Your task to perform on an android device: Show the shopping cart on amazon.com. Add "logitech g502" to the cart on amazon.com, then select checkout. Image 0: 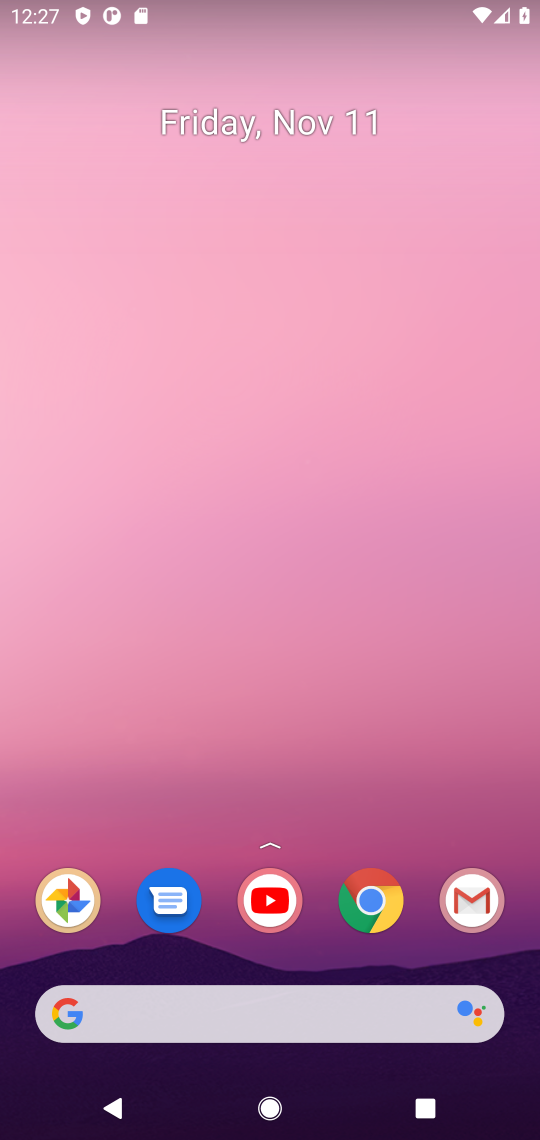
Step 0: click (370, 896)
Your task to perform on an android device: Show the shopping cart on amazon.com. Add "logitech g502" to the cart on amazon.com, then select checkout. Image 1: 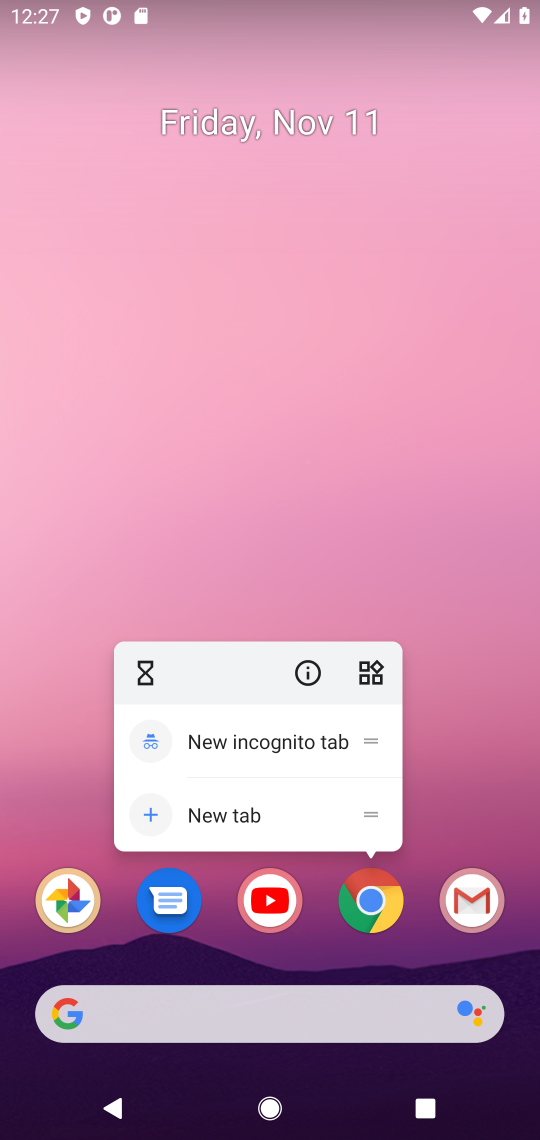
Step 1: click (370, 896)
Your task to perform on an android device: Show the shopping cart on amazon.com. Add "logitech g502" to the cart on amazon.com, then select checkout. Image 2: 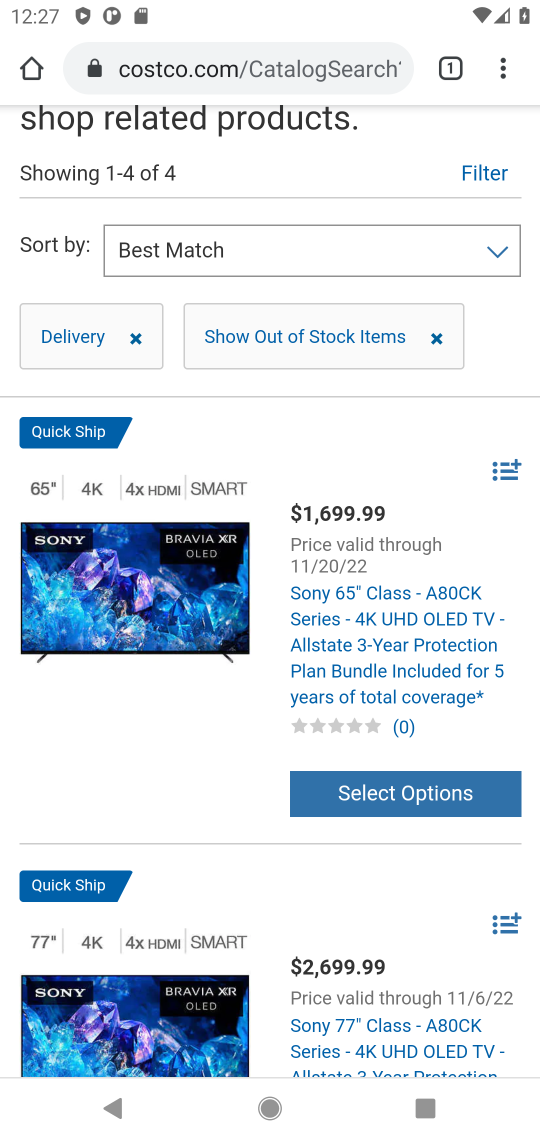
Step 2: click (277, 73)
Your task to perform on an android device: Show the shopping cart on amazon.com. Add "logitech g502" to the cart on amazon.com, then select checkout. Image 3: 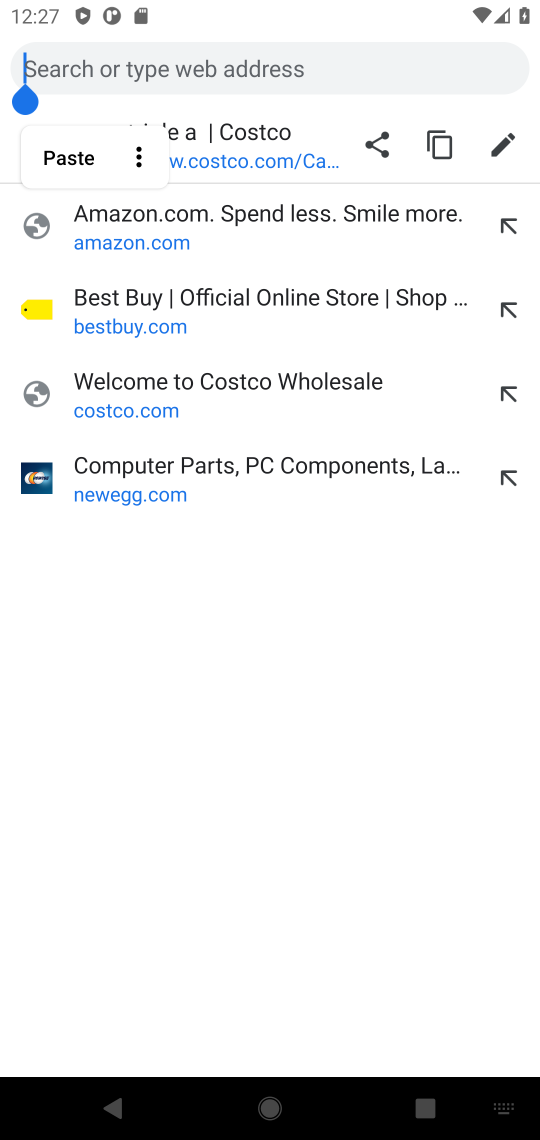
Step 3: click (152, 243)
Your task to perform on an android device: Show the shopping cart on amazon.com. Add "logitech g502" to the cart on amazon.com, then select checkout. Image 4: 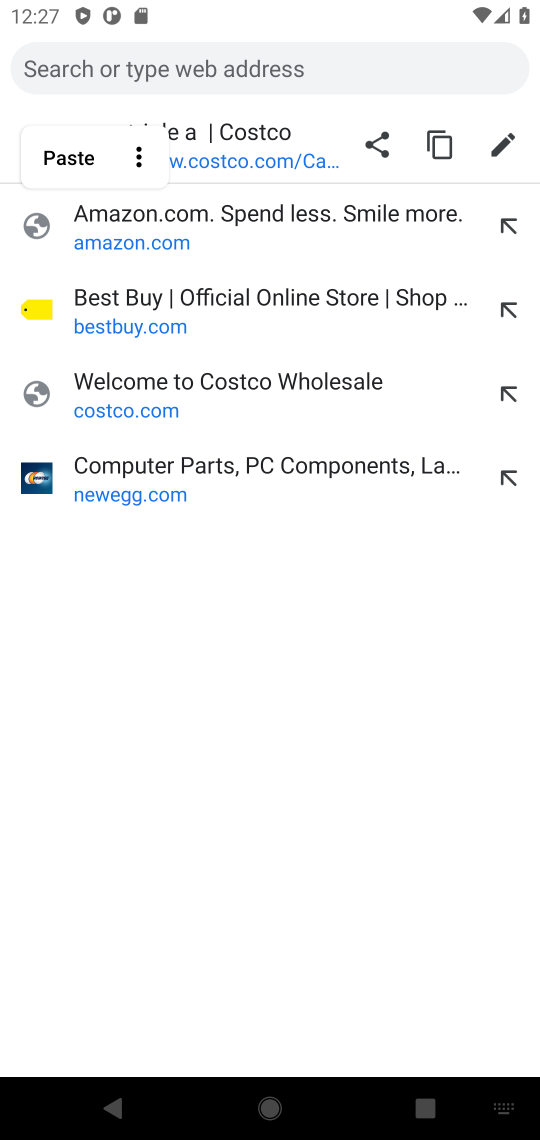
Step 4: click (126, 234)
Your task to perform on an android device: Show the shopping cart on amazon.com. Add "logitech g502" to the cart on amazon.com, then select checkout. Image 5: 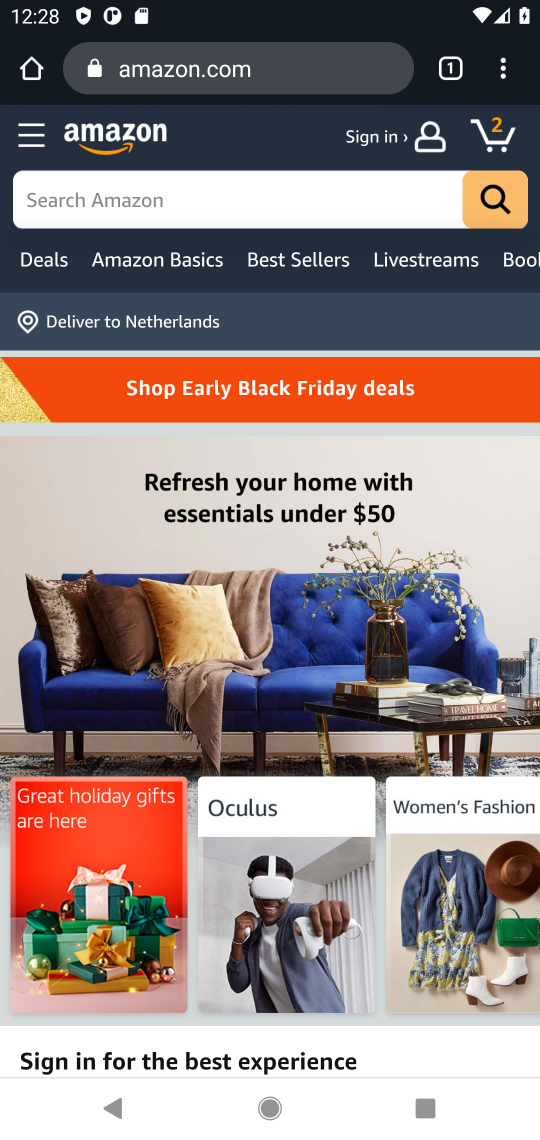
Step 5: click (77, 191)
Your task to perform on an android device: Show the shopping cart on amazon.com. Add "logitech g502" to the cart on amazon.com, then select checkout. Image 6: 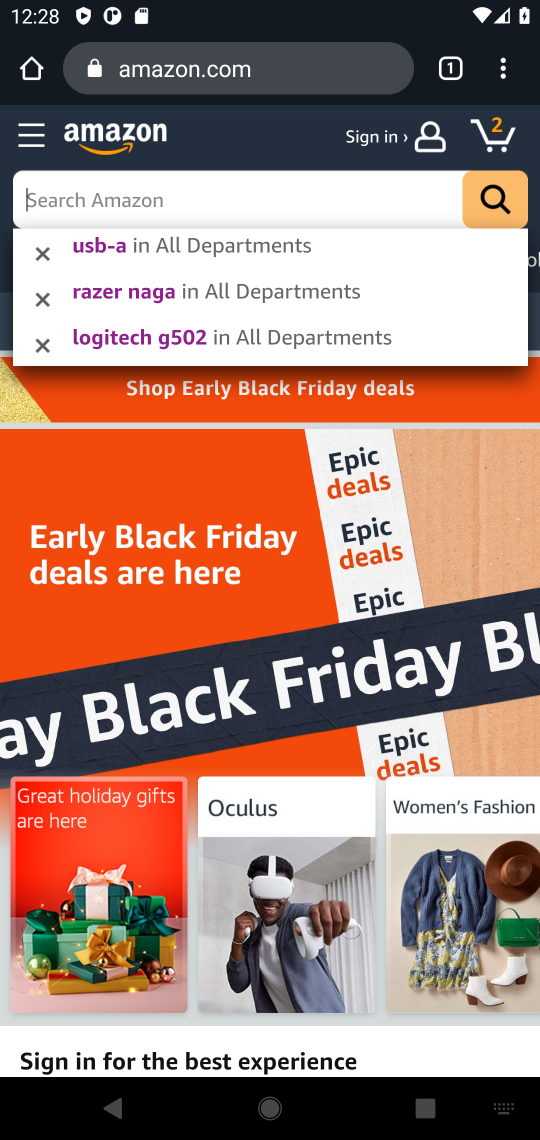
Step 6: press enter
Your task to perform on an android device: Show the shopping cart on amazon.com. Add "logitech g502" to the cart on amazon.com, then select checkout. Image 7: 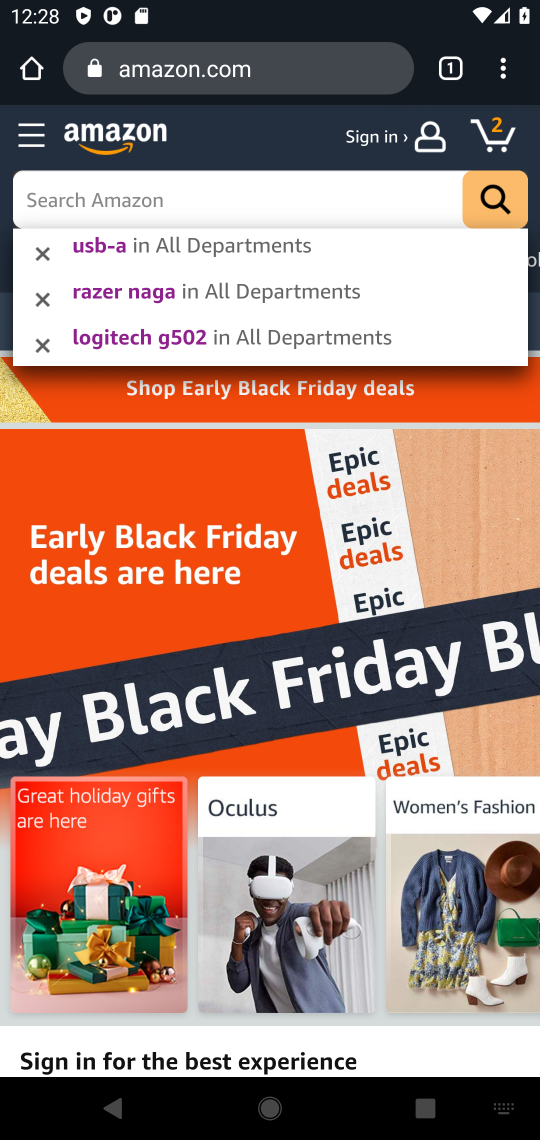
Step 7: type "logitech g502"
Your task to perform on an android device: Show the shopping cart on amazon.com. Add "logitech g502" to the cart on amazon.com, then select checkout. Image 8: 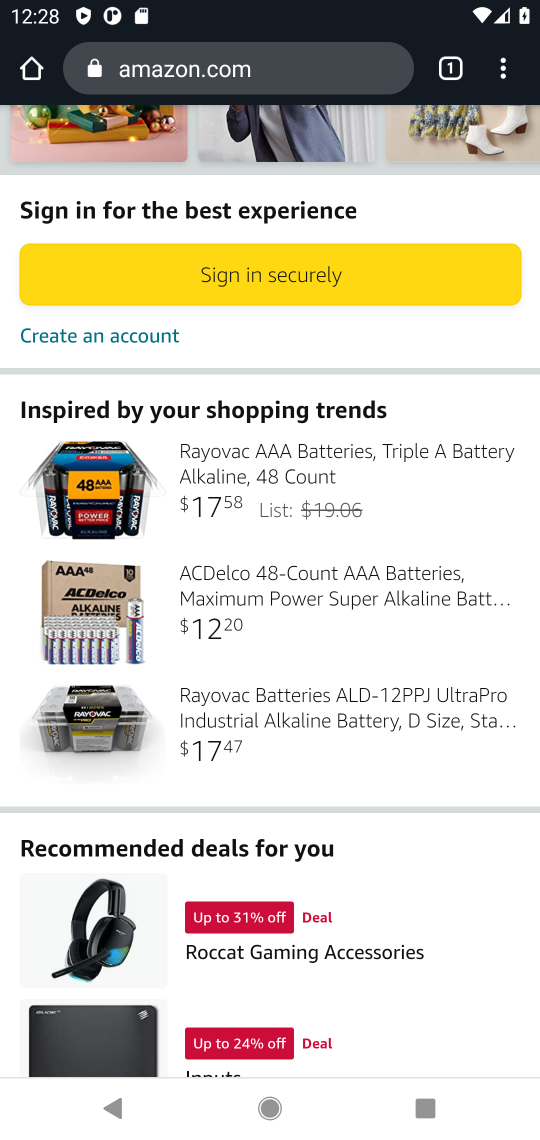
Step 8: drag from (391, 177) to (363, 926)
Your task to perform on an android device: Show the shopping cart on amazon.com. Add "logitech g502" to the cart on amazon.com, then select checkout. Image 9: 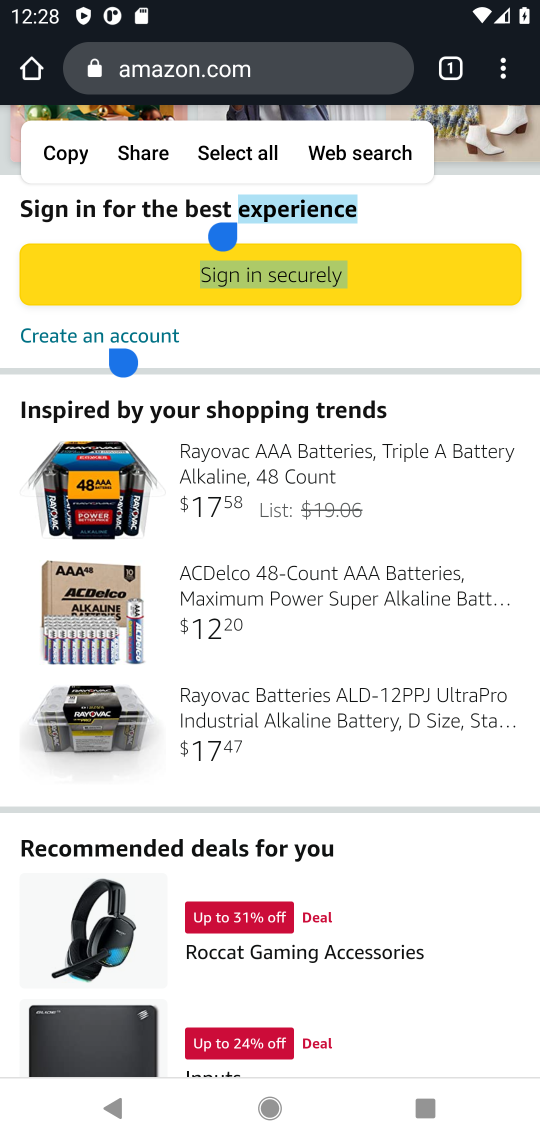
Step 9: drag from (464, 183) to (308, 1020)
Your task to perform on an android device: Show the shopping cart on amazon.com. Add "logitech g502" to the cart on amazon.com, then select checkout. Image 10: 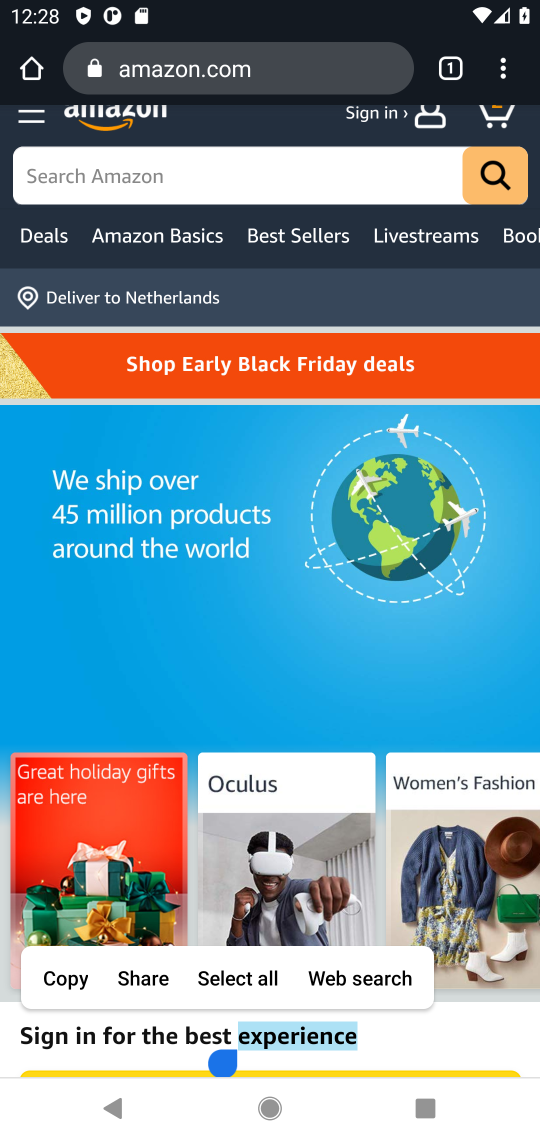
Step 10: click (248, 159)
Your task to perform on an android device: Show the shopping cart on amazon.com. Add "logitech g502" to the cart on amazon.com, then select checkout. Image 11: 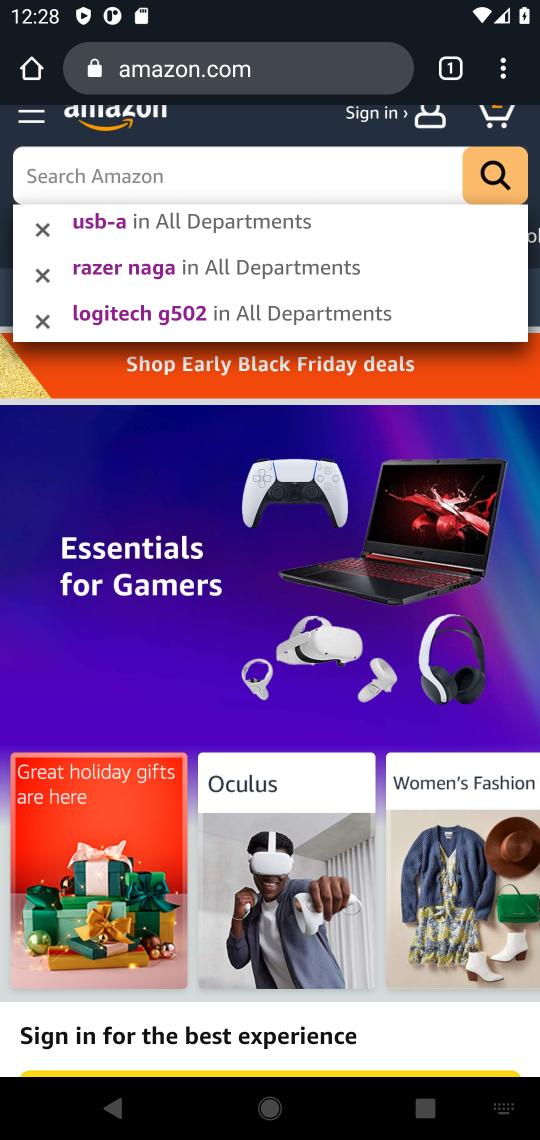
Step 11: type "logitech g502"
Your task to perform on an android device: Show the shopping cart on amazon.com. Add "logitech g502" to the cart on amazon.com, then select checkout. Image 12: 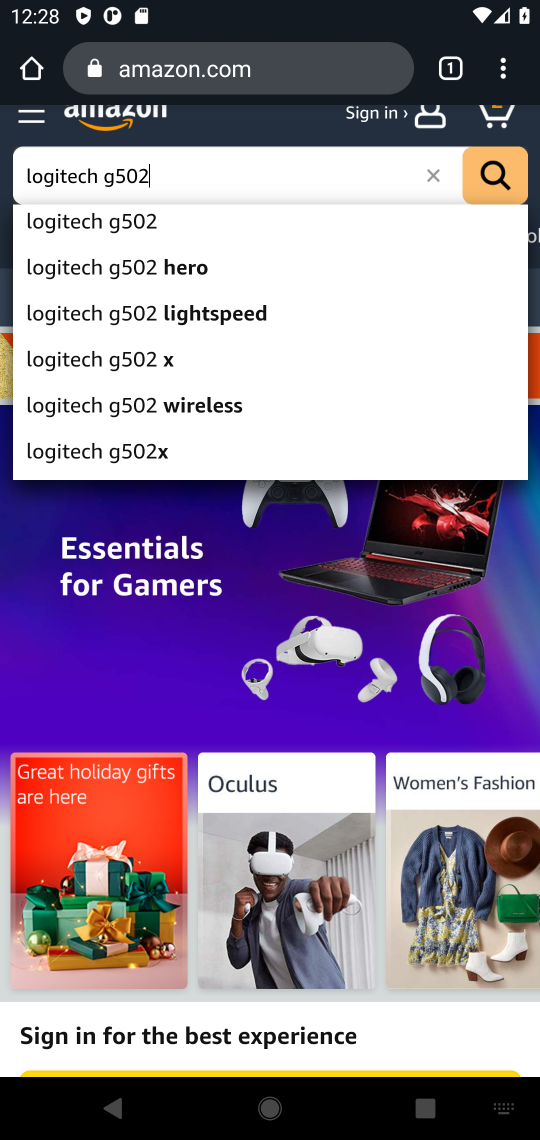
Step 12: press enter
Your task to perform on an android device: Show the shopping cart on amazon.com. Add "logitech g502" to the cart on amazon.com, then select checkout. Image 13: 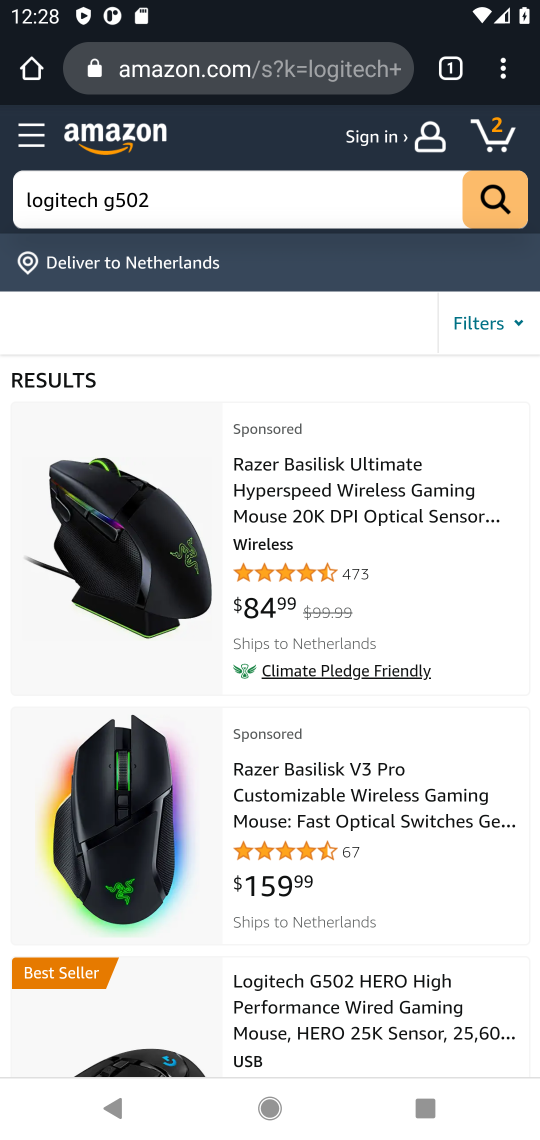
Step 13: drag from (273, 848) to (446, 456)
Your task to perform on an android device: Show the shopping cart on amazon.com. Add "logitech g502" to the cart on amazon.com, then select checkout. Image 14: 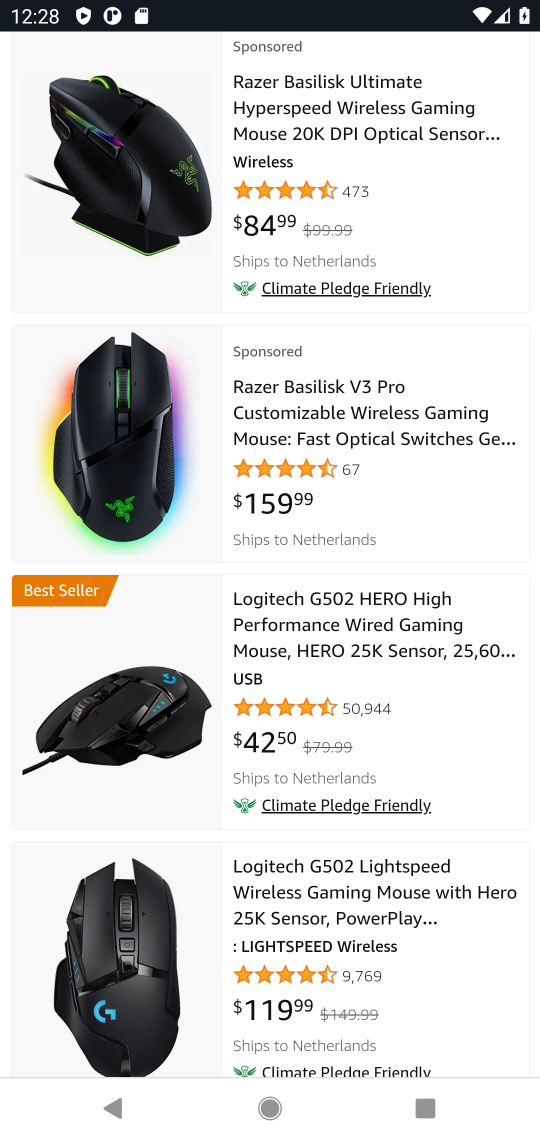
Step 14: click (329, 627)
Your task to perform on an android device: Show the shopping cart on amazon.com. Add "logitech g502" to the cart on amazon.com, then select checkout. Image 15: 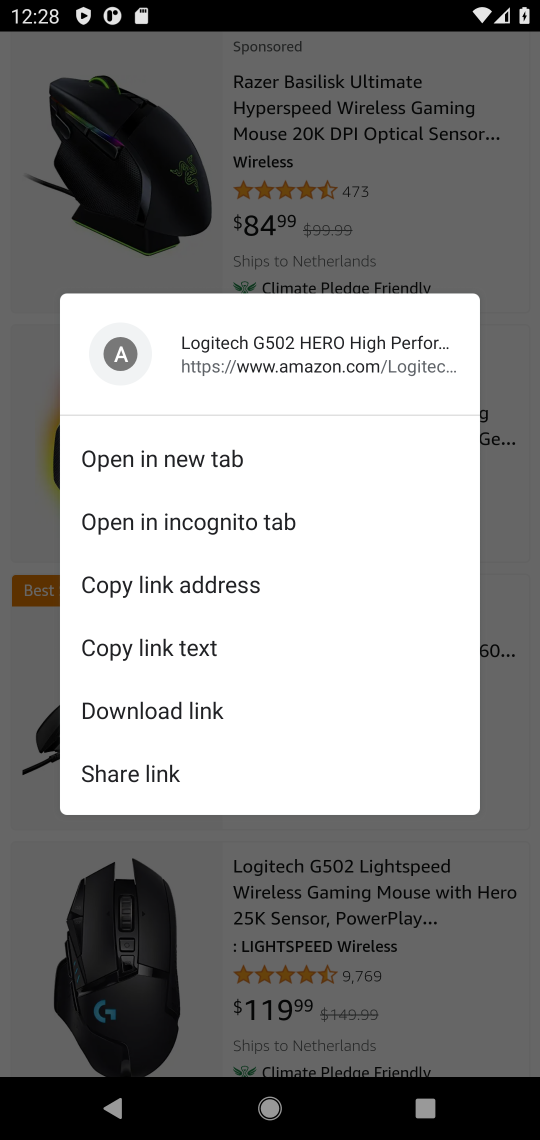
Step 15: click (502, 670)
Your task to perform on an android device: Show the shopping cart on amazon.com. Add "logitech g502" to the cart on amazon.com, then select checkout. Image 16: 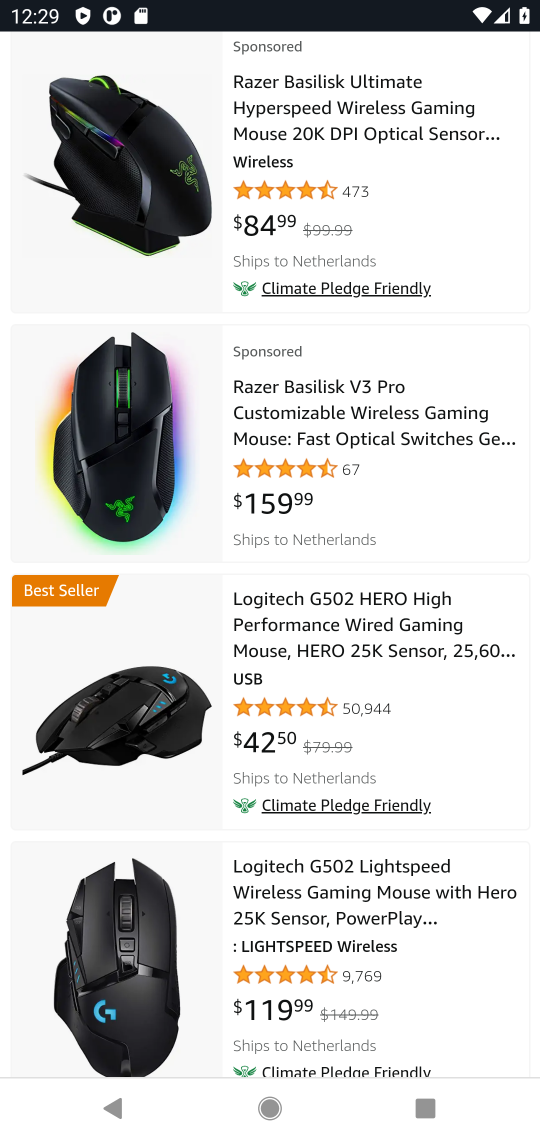
Step 16: click (275, 628)
Your task to perform on an android device: Show the shopping cart on amazon.com. Add "logitech g502" to the cart on amazon.com, then select checkout. Image 17: 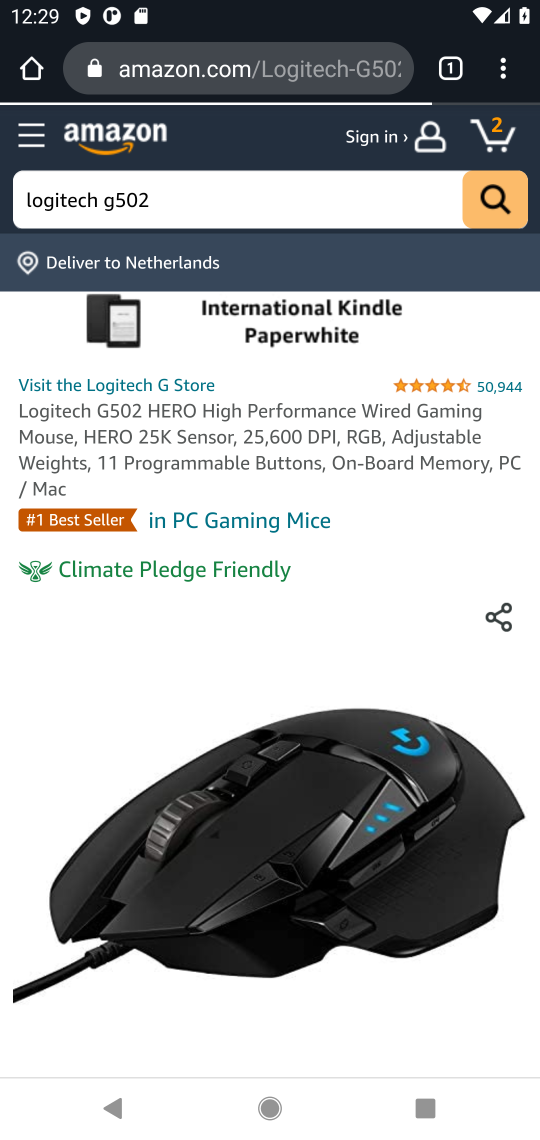
Step 17: drag from (139, 708) to (351, 358)
Your task to perform on an android device: Show the shopping cart on amazon.com. Add "logitech g502" to the cart on amazon.com, then select checkout. Image 18: 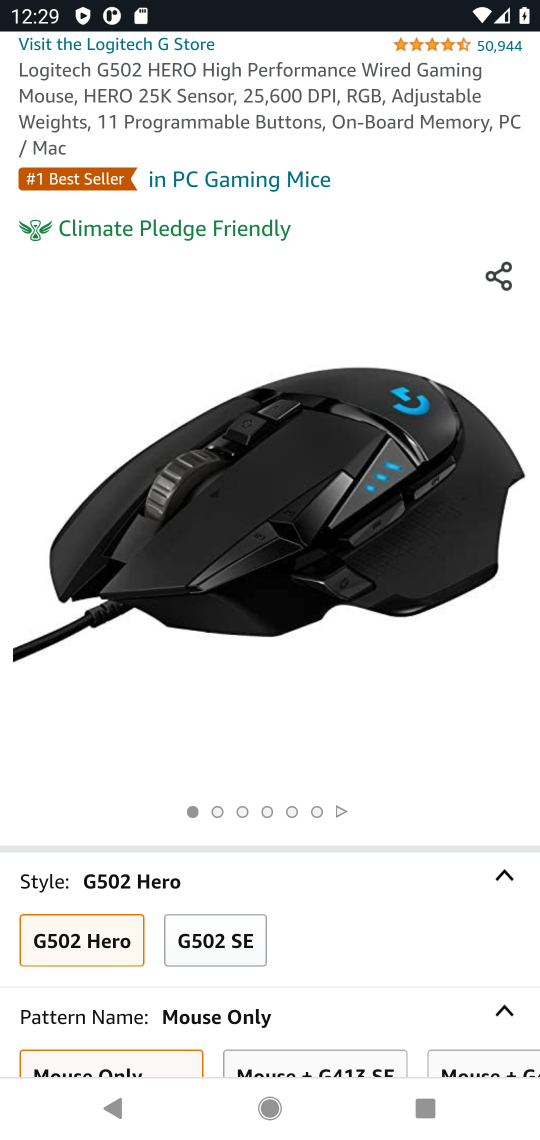
Step 18: drag from (288, 700) to (381, 135)
Your task to perform on an android device: Show the shopping cart on amazon.com. Add "logitech g502" to the cart on amazon.com, then select checkout. Image 19: 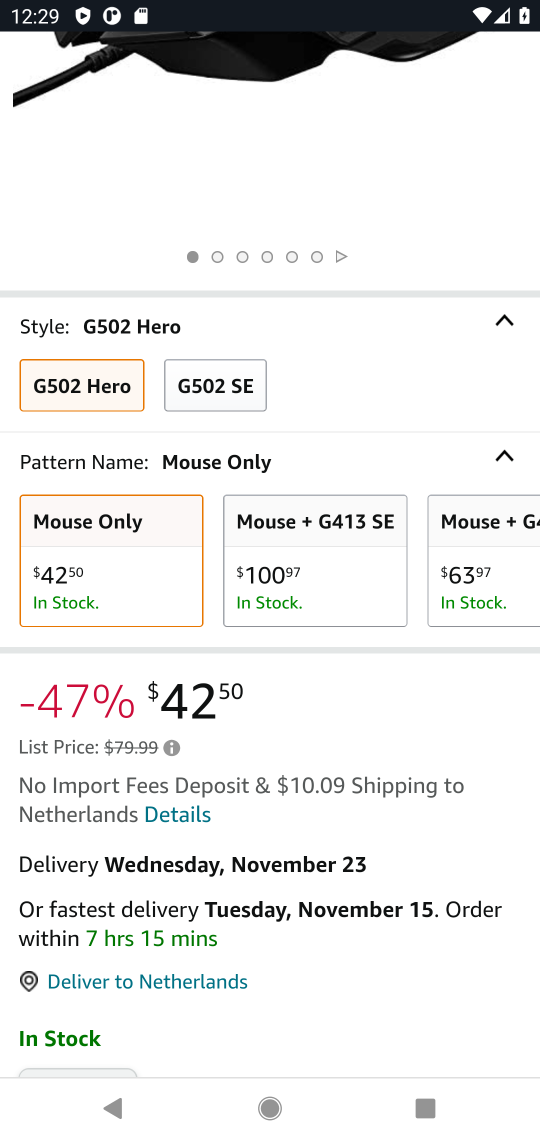
Step 19: drag from (272, 972) to (404, 259)
Your task to perform on an android device: Show the shopping cart on amazon.com. Add "logitech g502" to the cart on amazon.com, then select checkout. Image 20: 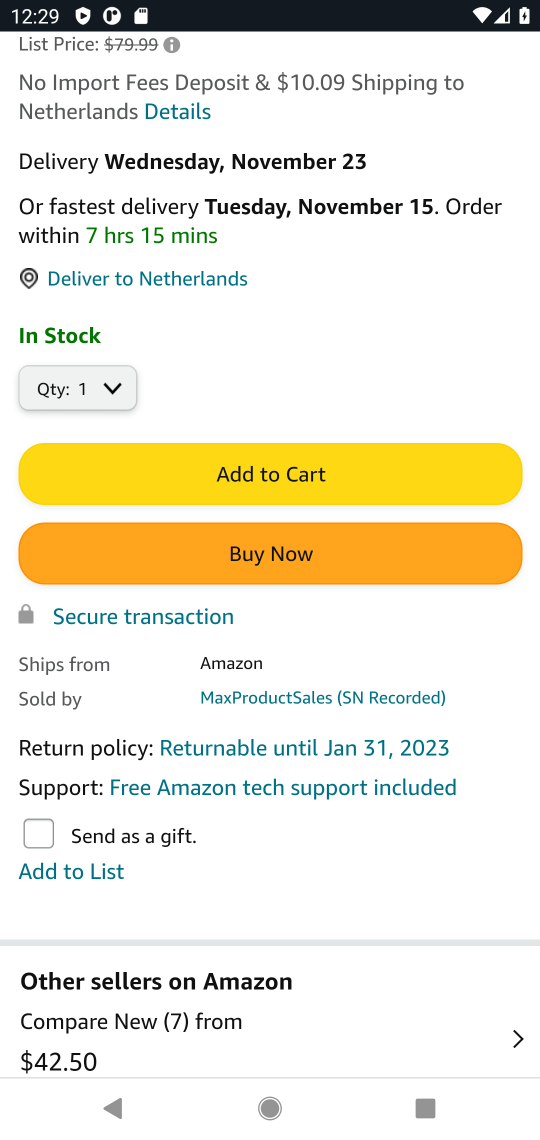
Step 20: click (282, 470)
Your task to perform on an android device: Show the shopping cart on amazon.com. Add "logitech g502" to the cart on amazon.com, then select checkout. Image 21: 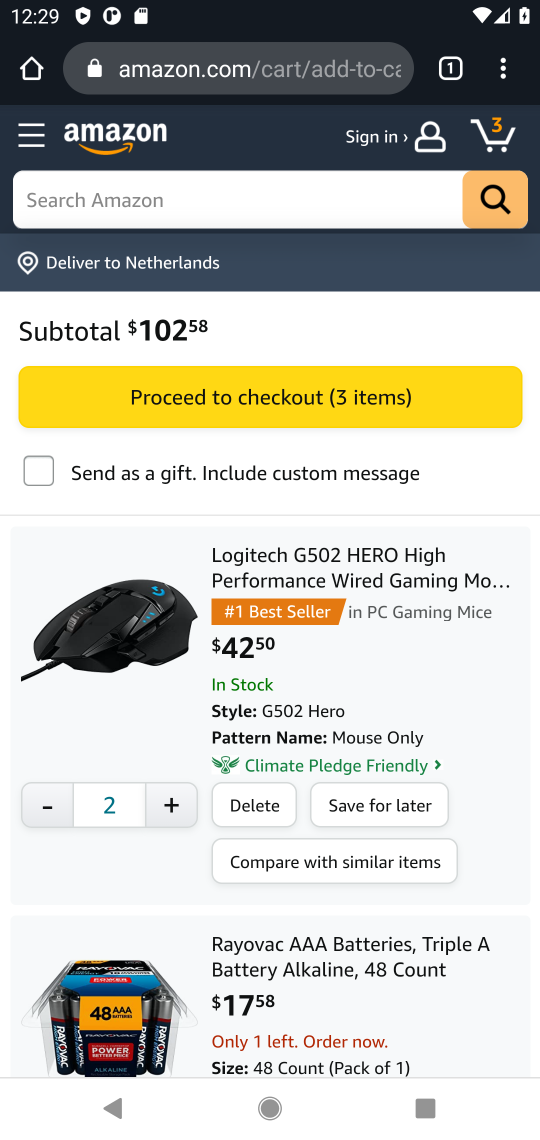
Step 21: drag from (310, 775) to (328, 545)
Your task to perform on an android device: Show the shopping cart on amazon.com. Add "logitech g502" to the cart on amazon.com, then select checkout. Image 22: 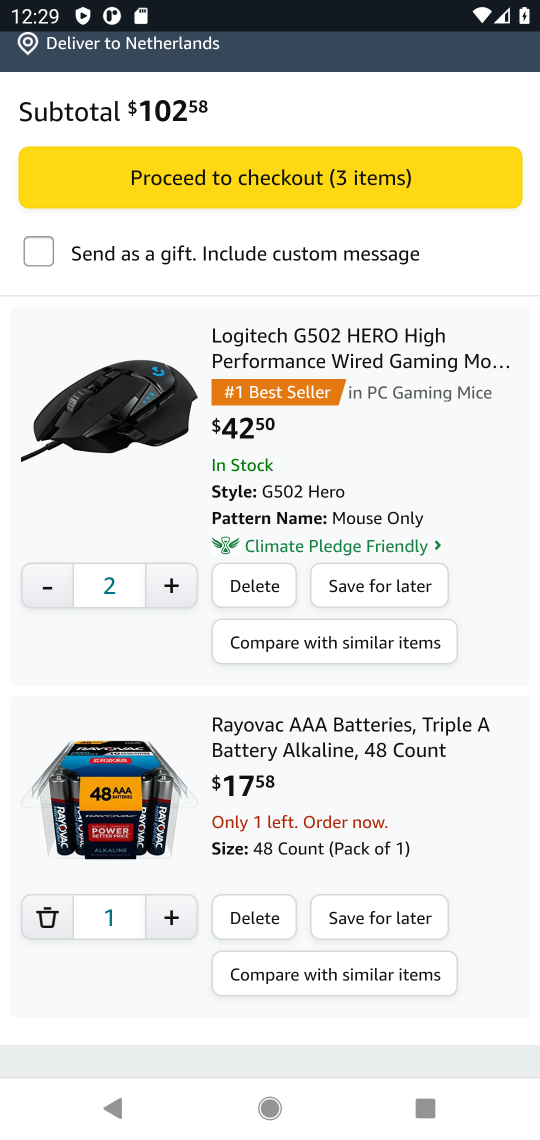
Step 22: click (251, 915)
Your task to perform on an android device: Show the shopping cart on amazon.com. Add "logitech g502" to the cart on amazon.com, then select checkout. Image 23: 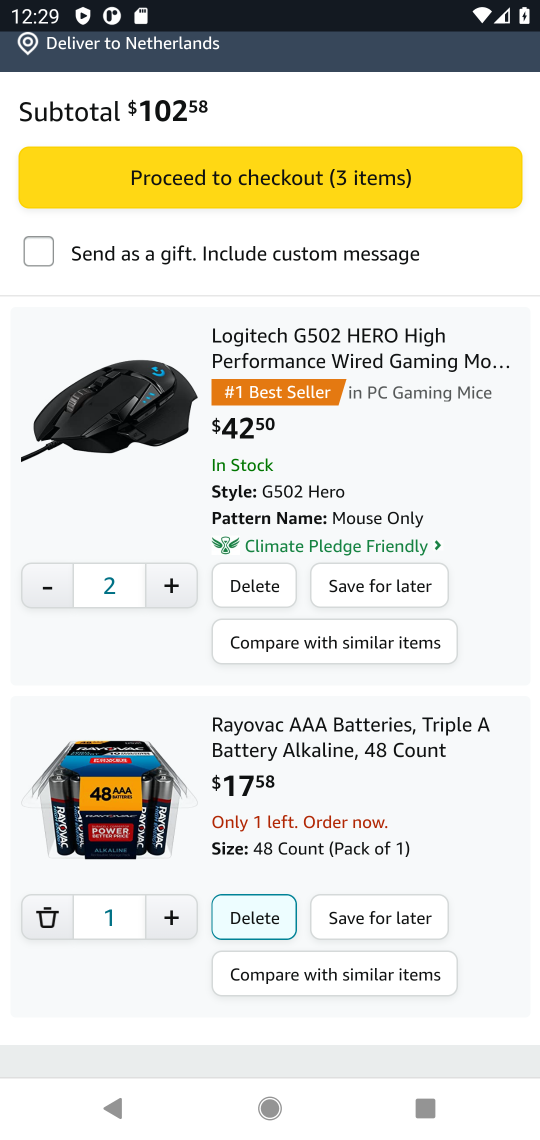
Step 23: click (261, 921)
Your task to perform on an android device: Show the shopping cart on amazon.com. Add "logitech g502" to the cart on amazon.com, then select checkout. Image 24: 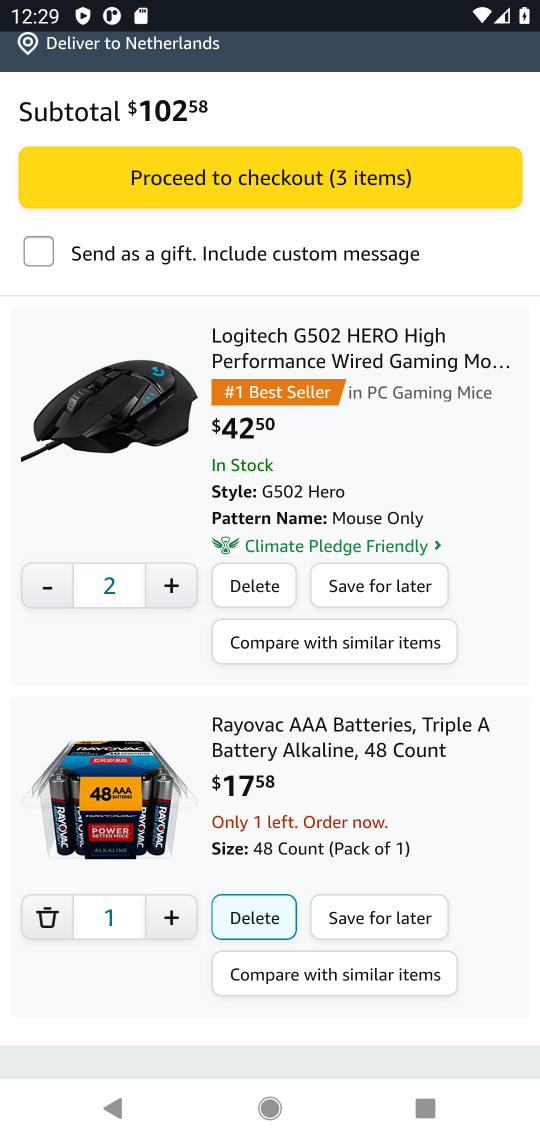
Step 24: click (241, 906)
Your task to perform on an android device: Show the shopping cart on amazon.com. Add "logitech g502" to the cart on amazon.com, then select checkout. Image 25: 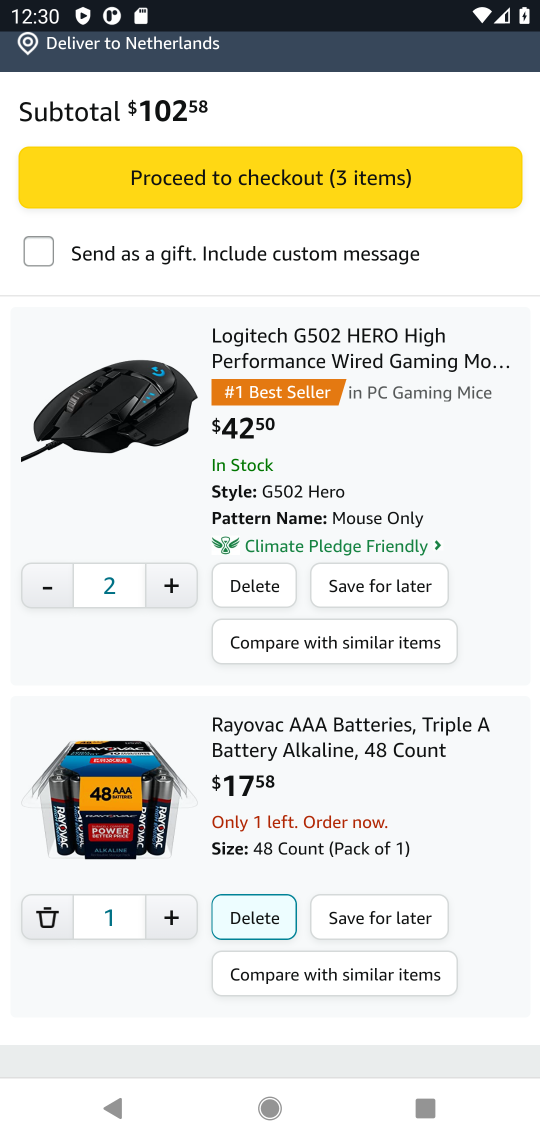
Step 25: click (266, 919)
Your task to perform on an android device: Show the shopping cart on amazon.com. Add "logitech g502" to the cart on amazon.com, then select checkout. Image 26: 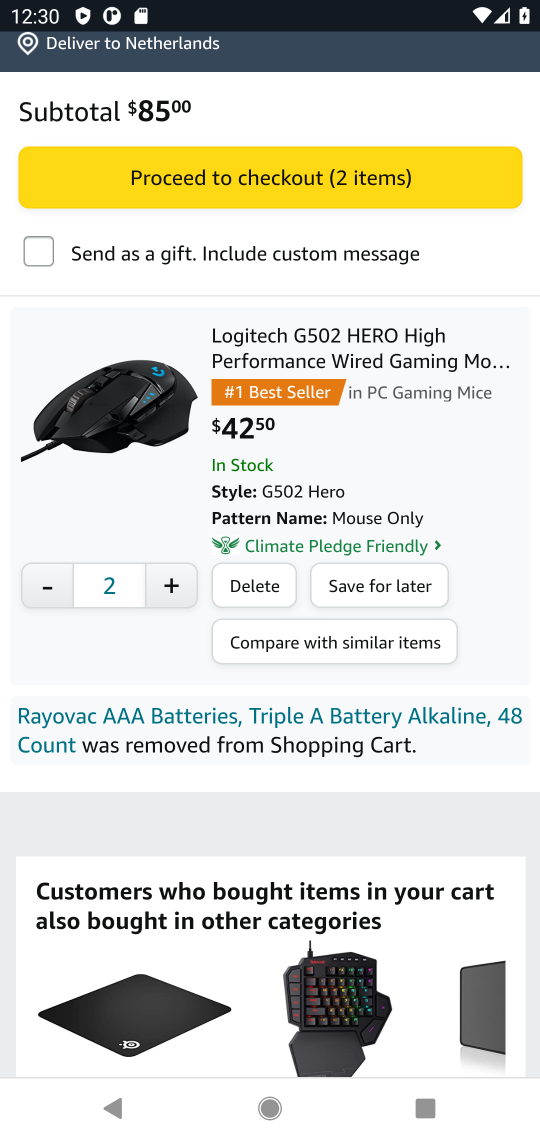
Step 26: drag from (445, 737) to (399, 972)
Your task to perform on an android device: Show the shopping cart on amazon.com. Add "logitech g502" to the cart on amazon.com, then select checkout. Image 27: 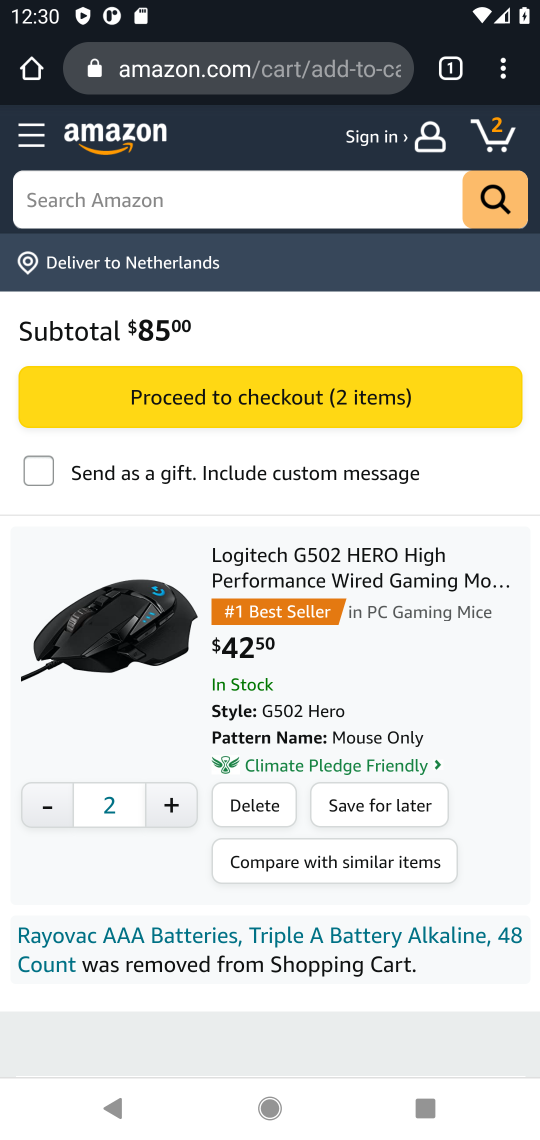
Step 27: drag from (420, 687) to (443, 285)
Your task to perform on an android device: Show the shopping cart on amazon.com. Add "logitech g502" to the cart on amazon.com, then select checkout. Image 28: 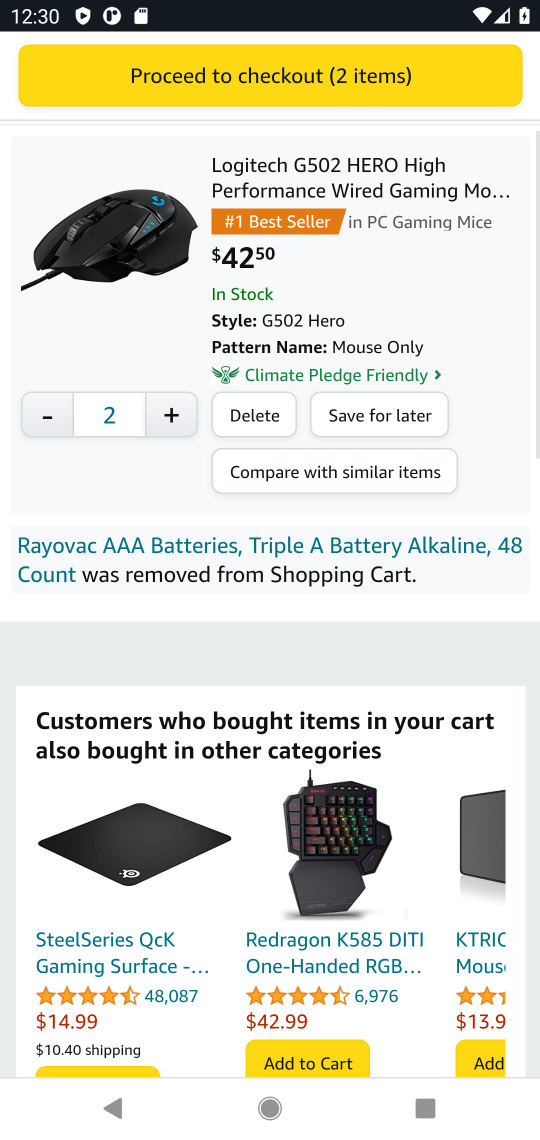
Step 28: drag from (299, 942) to (406, 187)
Your task to perform on an android device: Show the shopping cart on amazon.com. Add "logitech g502" to the cart on amazon.com, then select checkout. Image 29: 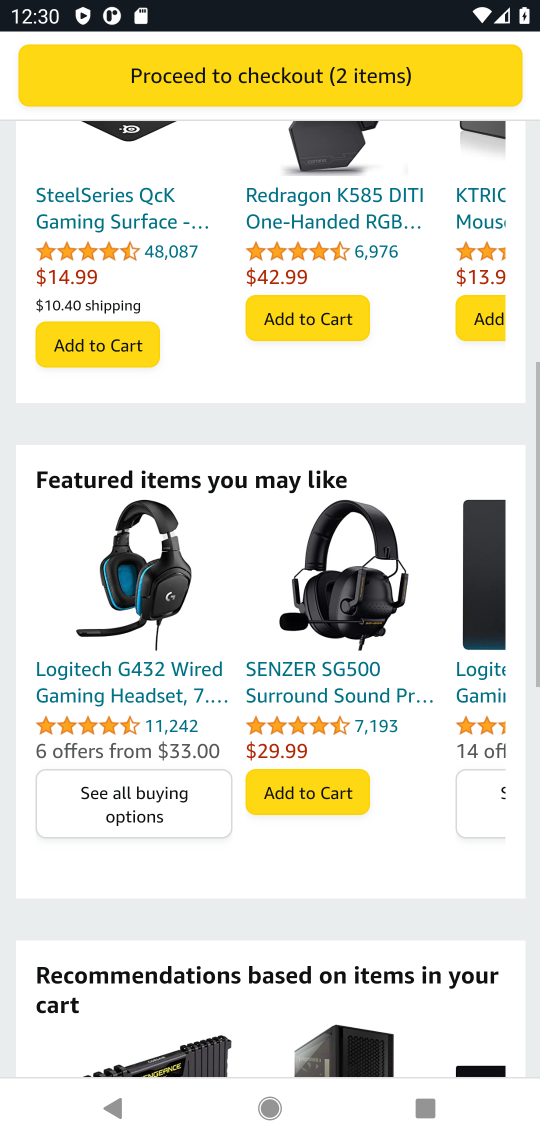
Step 29: drag from (280, 911) to (328, 1066)
Your task to perform on an android device: Show the shopping cart on amazon.com. Add "logitech g502" to the cart on amazon.com, then select checkout. Image 30: 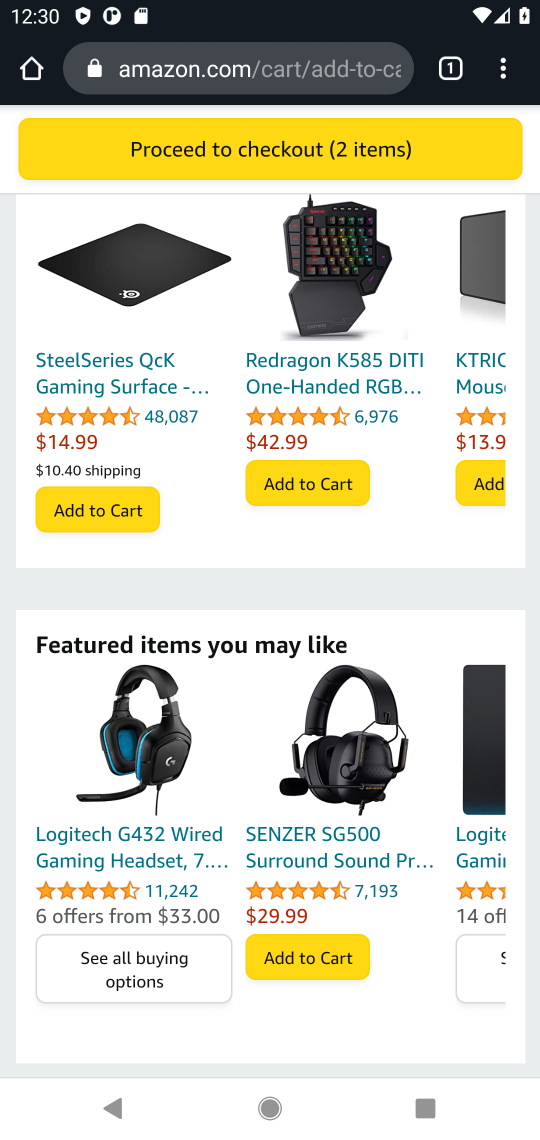
Step 30: drag from (395, 887) to (399, 1023)
Your task to perform on an android device: Show the shopping cart on amazon.com. Add "logitech g502" to the cart on amazon.com, then select checkout. Image 31: 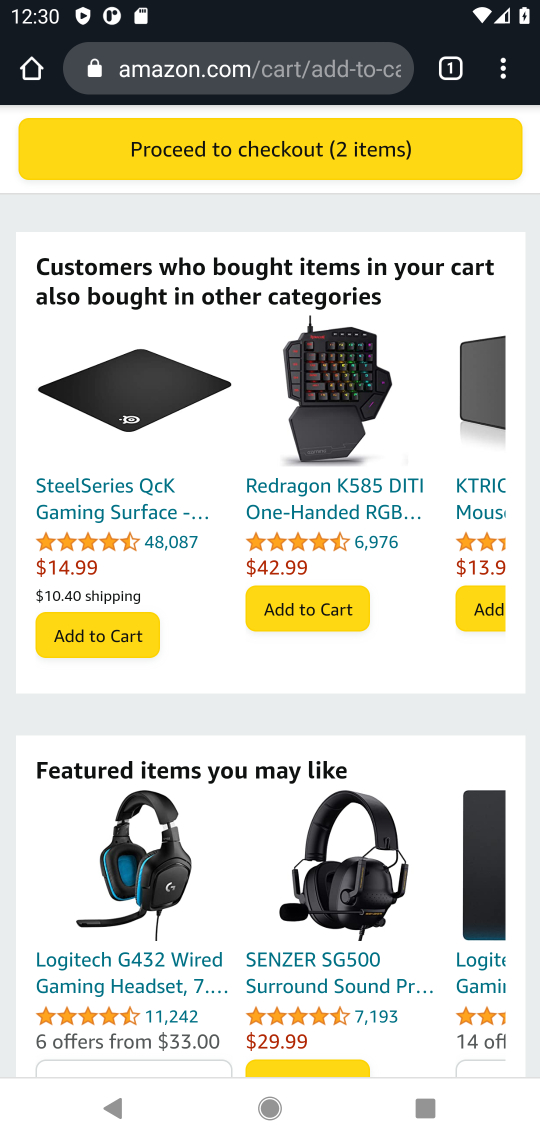
Step 31: drag from (420, 222) to (438, 926)
Your task to perform on an android device: Show the shopping cart on amazon.com. Add "logitech g502" to the cart on amazon.com, then select checkout. Image 32: 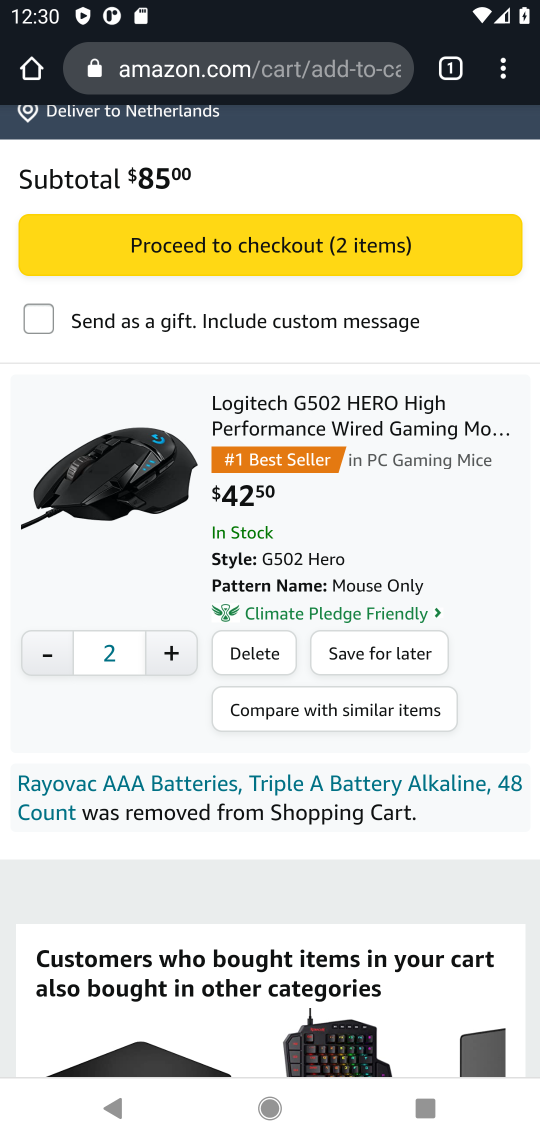
Step 32: click (45, 644)
Your task to perform on an android device: Show the shopping cart on amazon.com. Add "logitech g502" to the cart on amazon.com, then select checkout. Image 33: 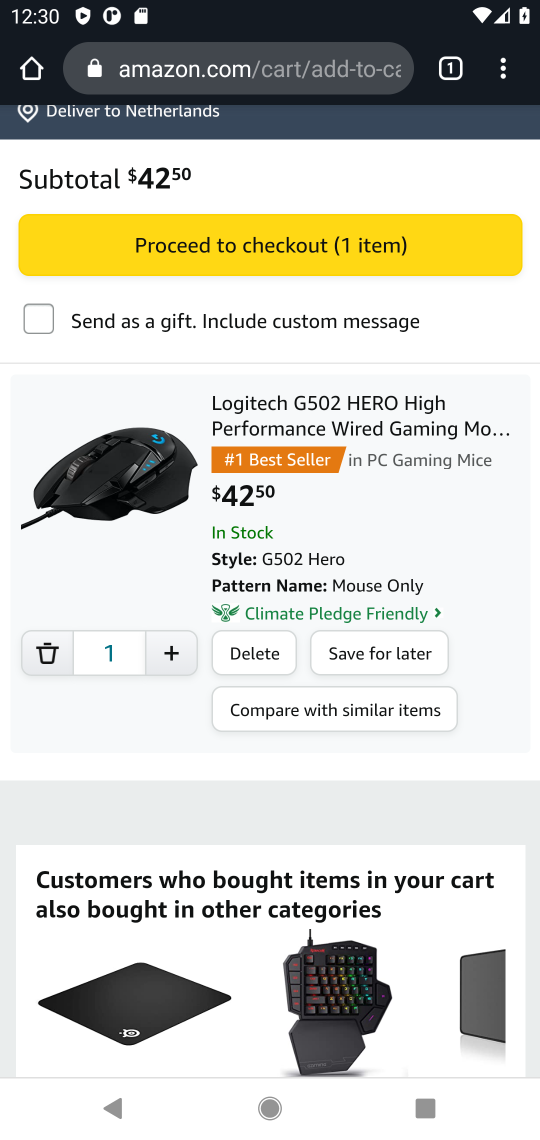
Step 33: click (363, 237)
Your task to perform on an android device: Show the shopping cart on amazon.com. Add "logitech g502" to the cart on amazon.com, then select checkout. Image 34: 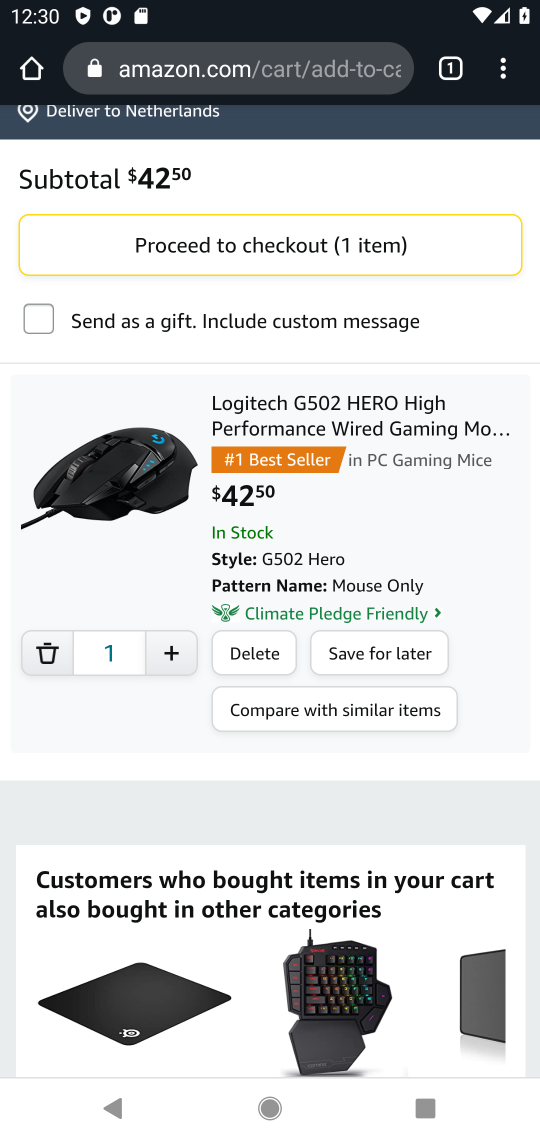
Step 34: click (337, 242)
Your task to perform on an android device: Show the shopping cart on amazon.com. Add "logitech g502" to the cart on amazon.com, then select checkout. Image 35: 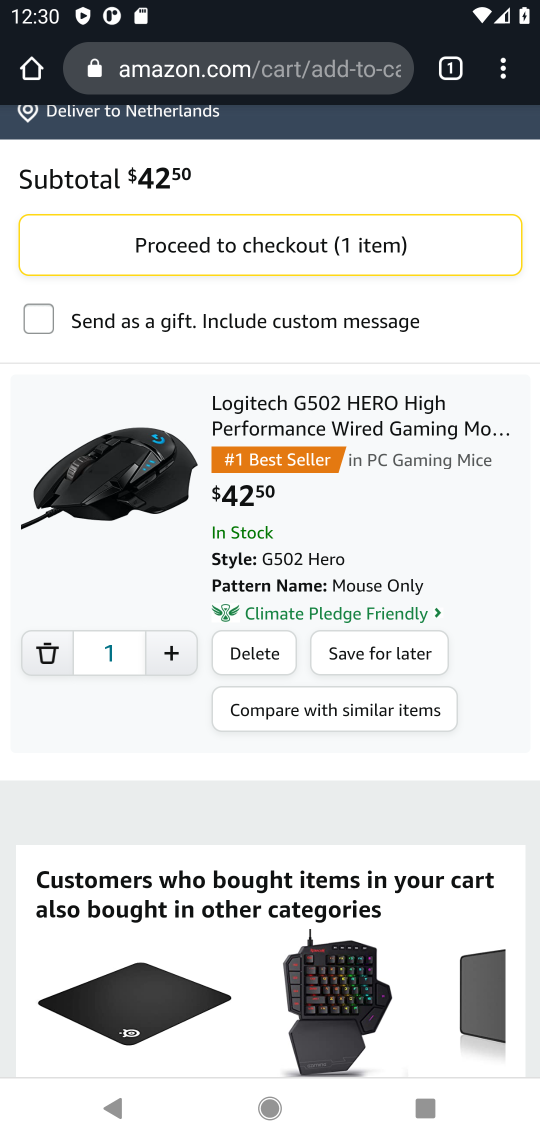
Step 35: click (250, 252)
Your task to perform on an android device: Show the shopping cart on amazon.com. Add "logitech g502" to the cart on amazon.com, then select checkout. Image 36: 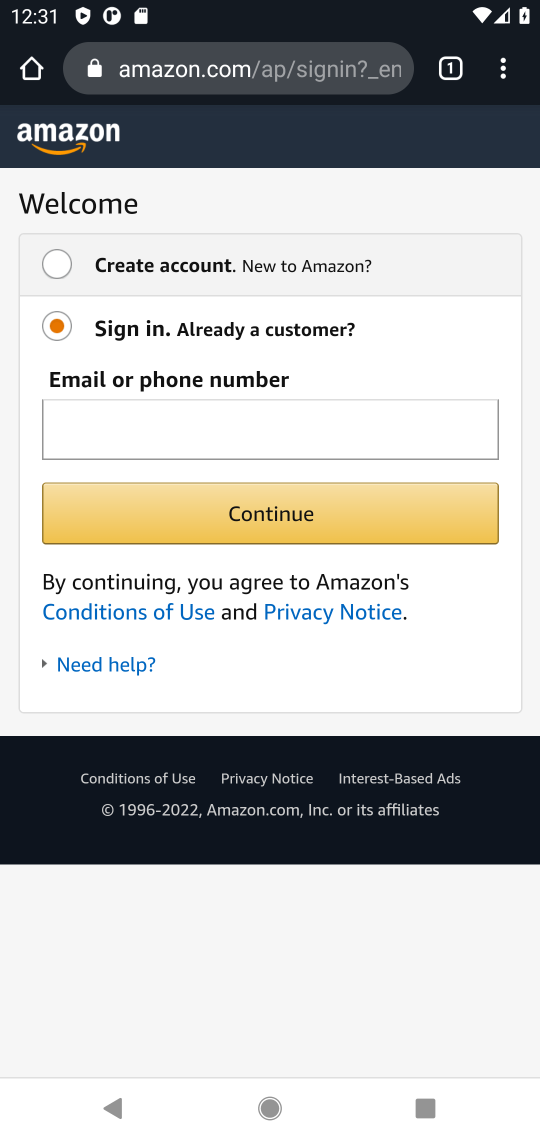
Step 36: task complete